Your task to perform on an android device: change alarm snooze length Image 0: 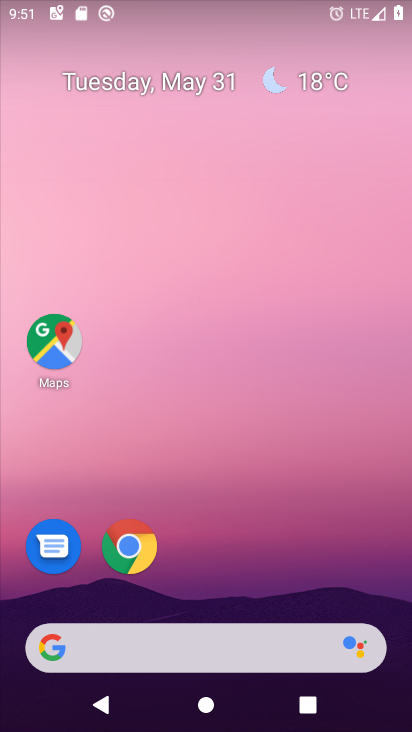
Step 0: drag from (212, 577) to (240, 112)
Your task to perform on an android device: change alarm snooze length Image 1: 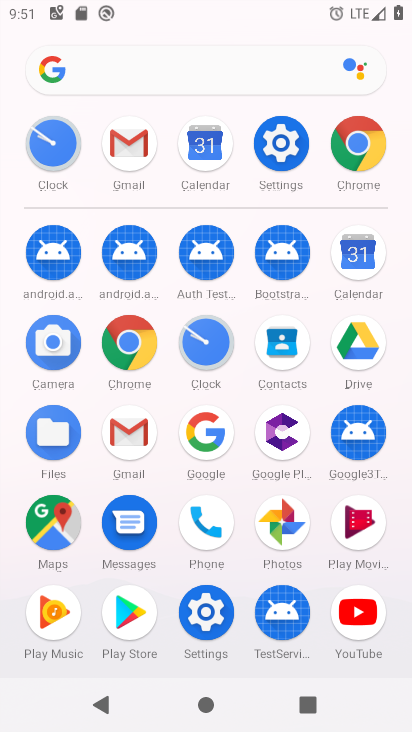
Step 1: click (212, 367)
Your task to perform on an android device: change alarm snooze length Image 2: 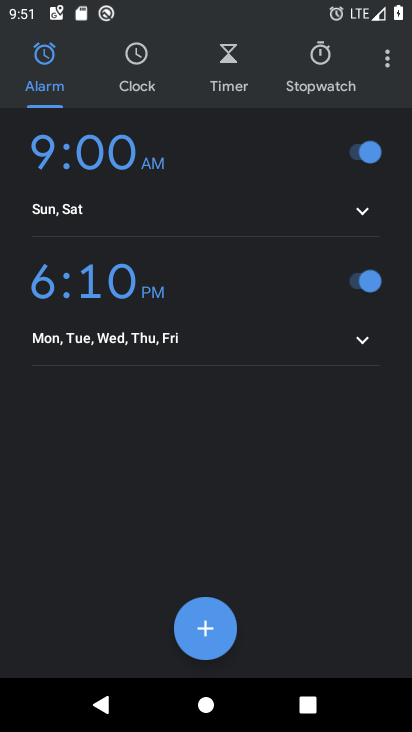
Step 2: click (390, 60)
Your task to perform on an android device: change alarm snooze length Image 3: 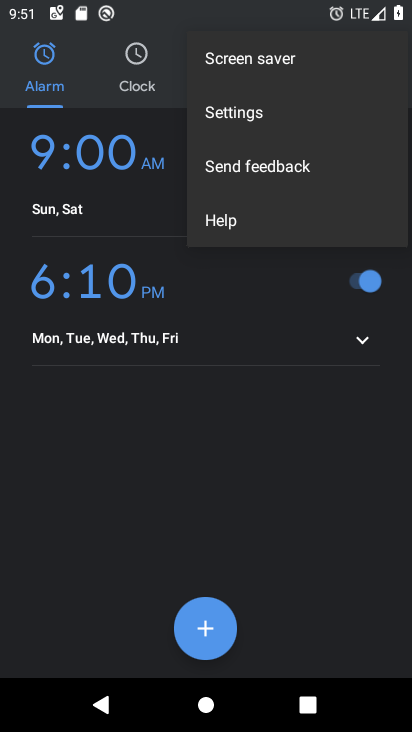
Step 3: click (240, 111)
Your task to perform on an android device: change alarm snooze length Image 4: 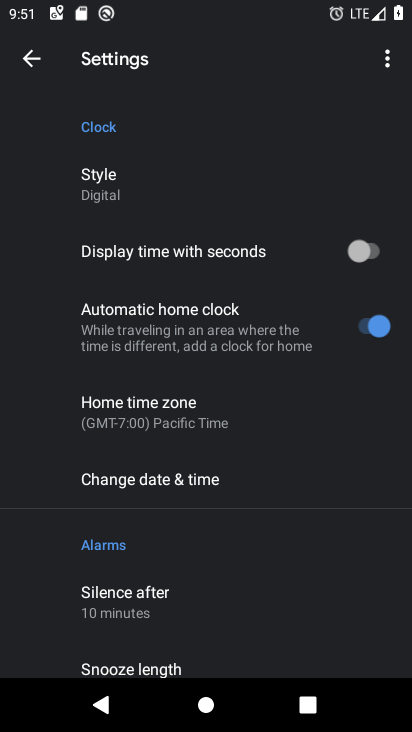
Step 4: drag from (177, 580) to (213, 316)
Your task to perform on an android device: change alarm snooze length Image 5: 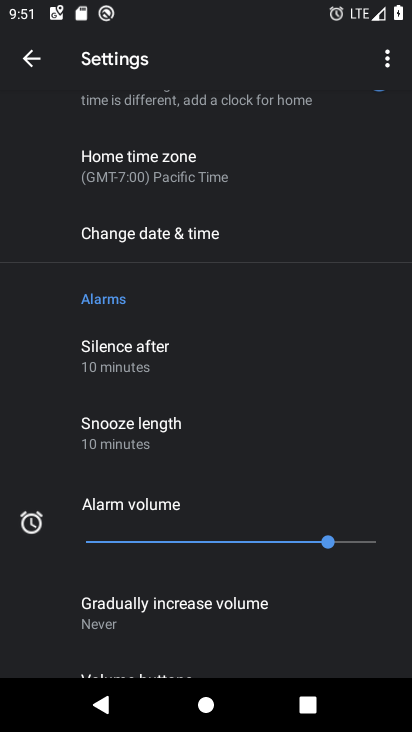
Step 5: click (178, 433)
Your task to perform on an android device: change alarm snooze length Image 6: 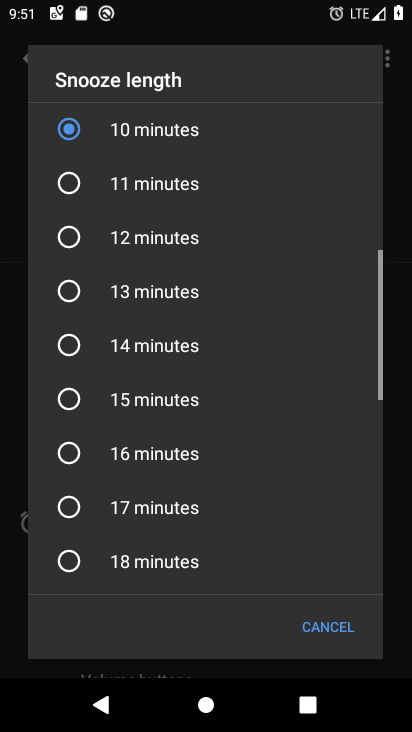
Step 6: click (109, 397)
Your task to perform on an android device: change alarm snooze length Image 7: 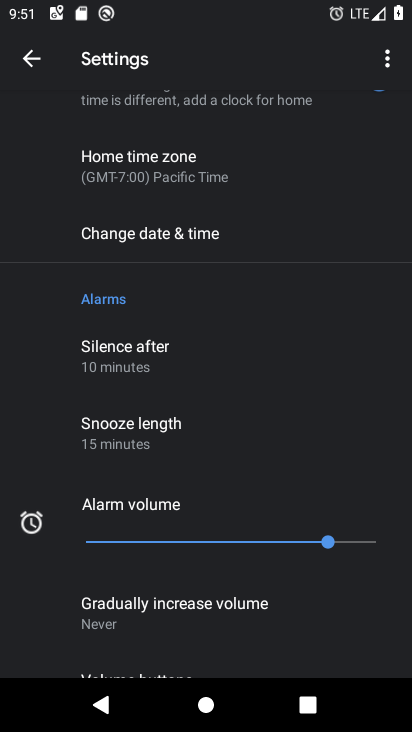
Step 7: task complete